Your task to perform on an android device: Open CNN.com Image 0: 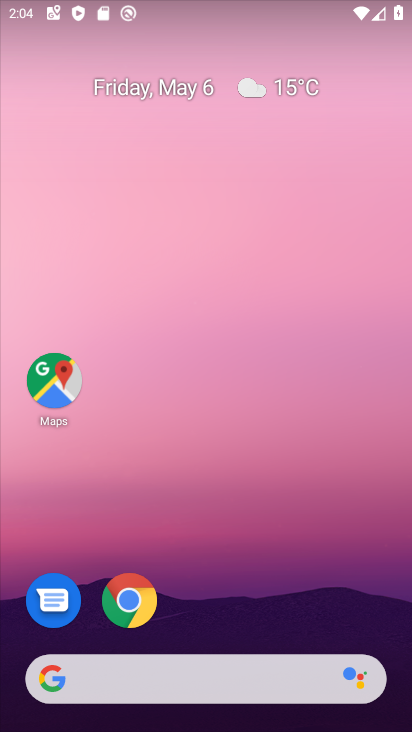
Step 0: drag from (312, 618) to (307, 70)
Your task to perform on an android device: Open CNN.com Image 1: 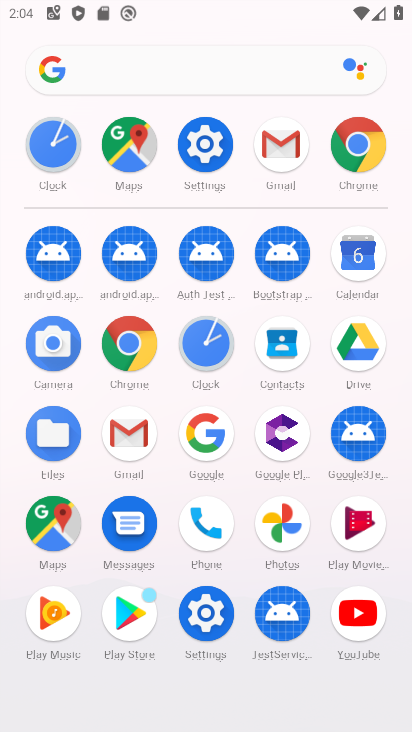
Step 1: click (142, 360)
Your task to perform on an android device: Open CNN.com Image 2: 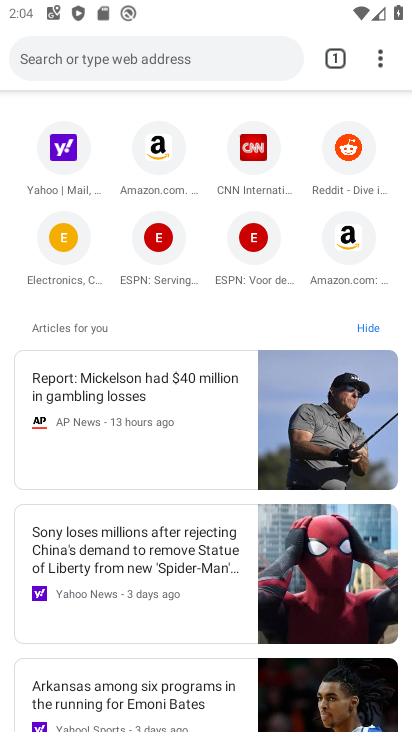
Step 2: click (140, 61)
Your task to perform on an android device: Open CNN.com Image 3: 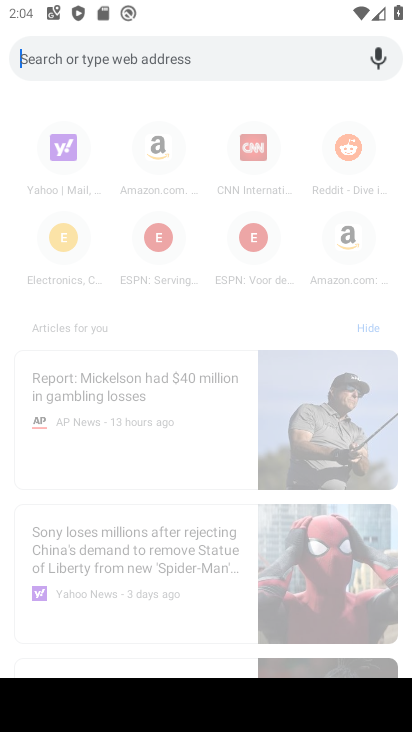
Step 3: type "cnn.com"
Your task to perform on an android device: Open CNN.com Image 4: 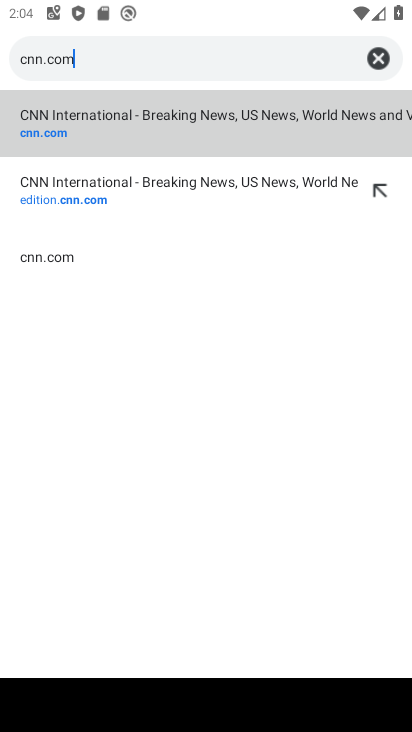
Step 4: click (180, 111)
Your task to perform on an android device: Open CNN.com Image 5: 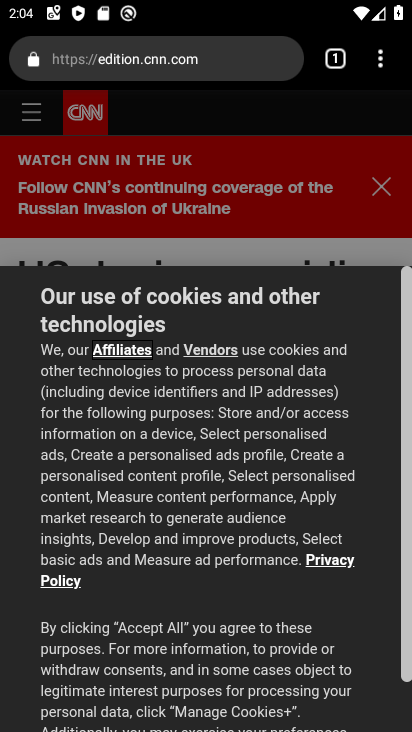
Step 5: task complete